Your task to perform on an android device: add a label to a message in the gmail app Image 0: 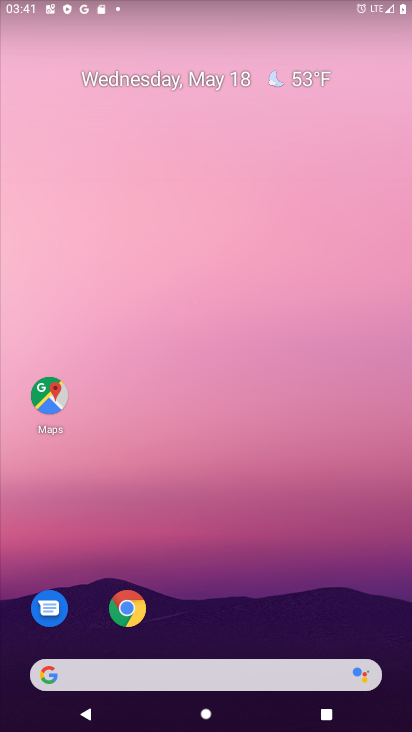
Step 0: drag from (271, 613) to (304, 15)
Your task to perform on an android device: add a label to a message in the gmail app Image 1: 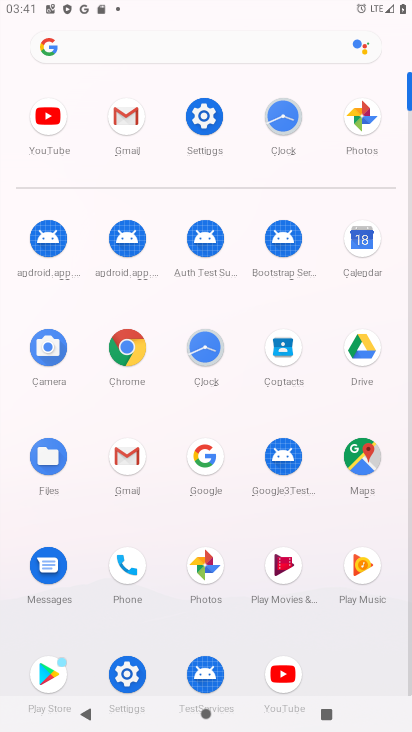
Step 1: click (133, 120)
Your task to perform on an android device: add a label to a message in the gmail app Image 2: 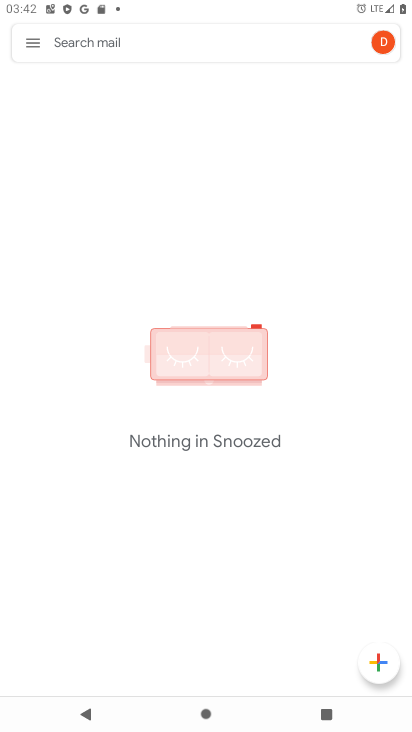
Step 2: click (26, 40)
Your task to perform on an android device: add a label to a message in the gmail app Image 3: 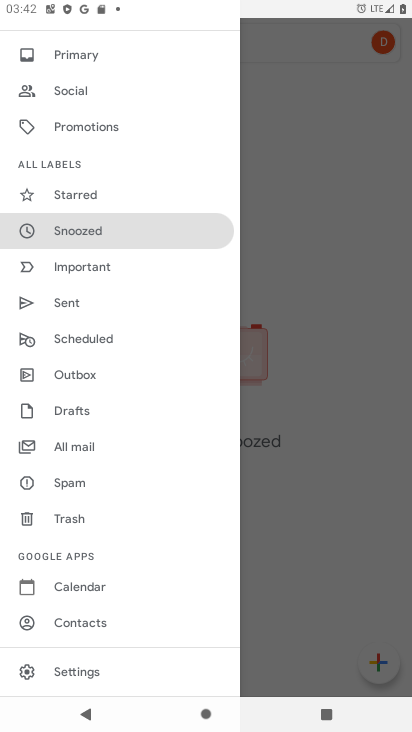
Step 3: click (78, 449)
Your task to perform on an android device: add a label to a message in the gmail app Image 4: 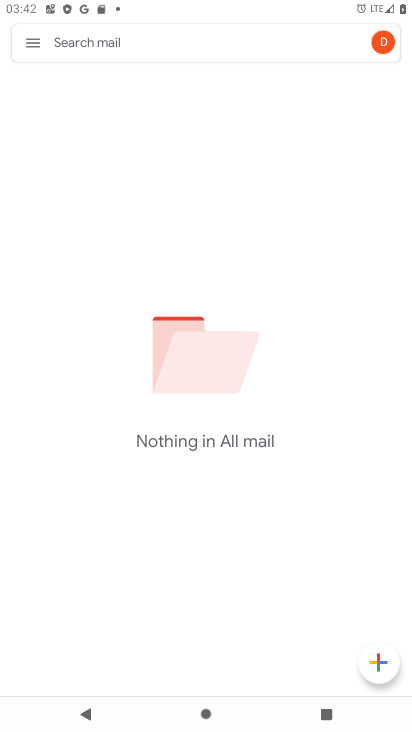
Step 4: task complete